Your task to perform on an android device: Go to privacy settings Image 0: 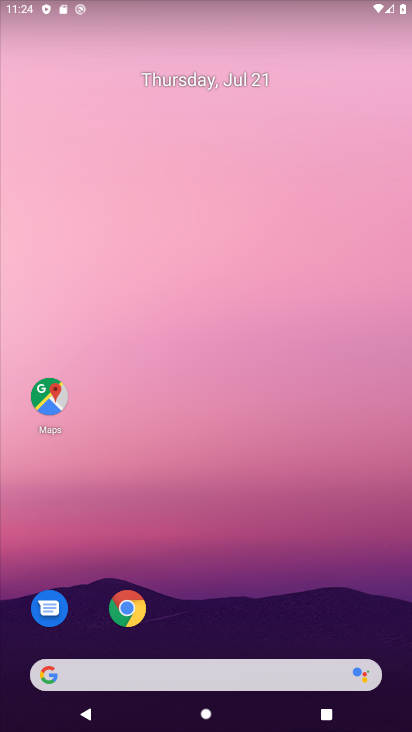
Step 0: drag from (184, 284) to (184, 248)
Your task to perform on an android device: Go to privacy settings Image 1: 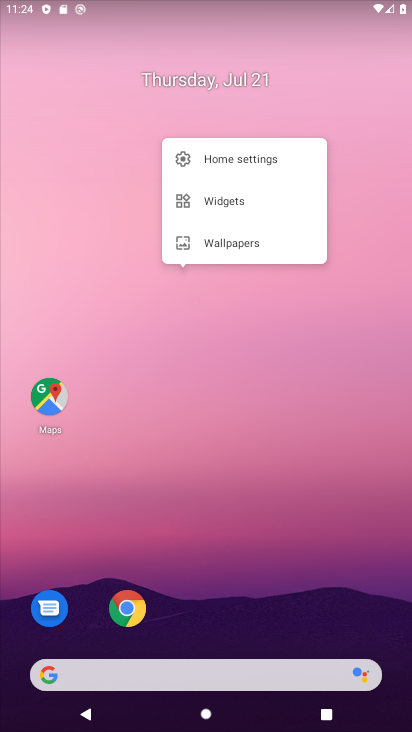
Step 1: drag from (237, 489) to (213, 343)
Your task to perform on an android device: Go to privacy settings Image 2: 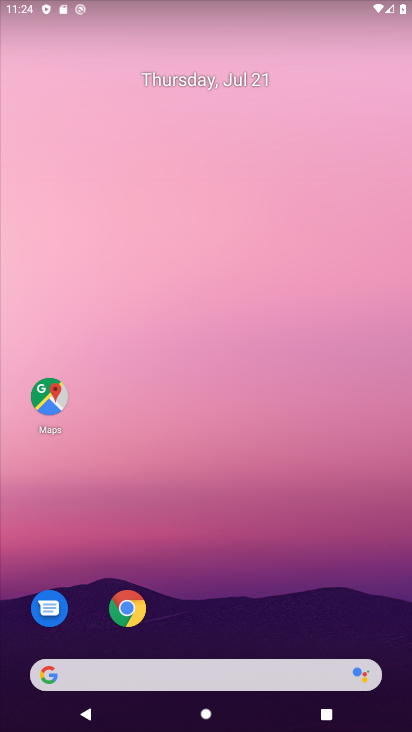
Step 2: drag from (210, 321) to (207, 280)
Your task to perform on an android device: Go to privacy settings Image 3: 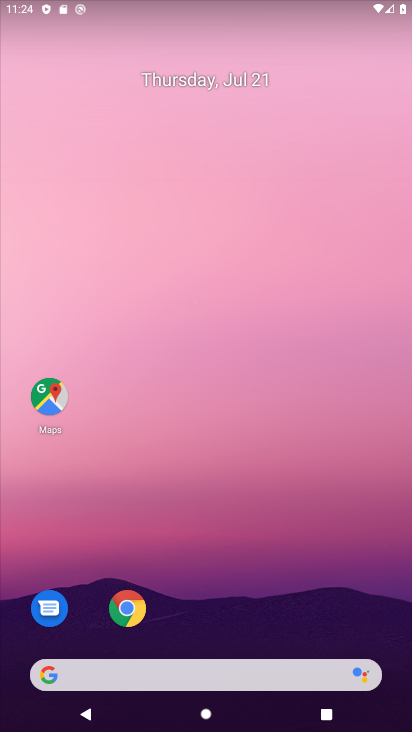
Step 3: drag from (260, 570) to (264, 338)
Your task to perform on an android device: Go to privacy settings Image 4: 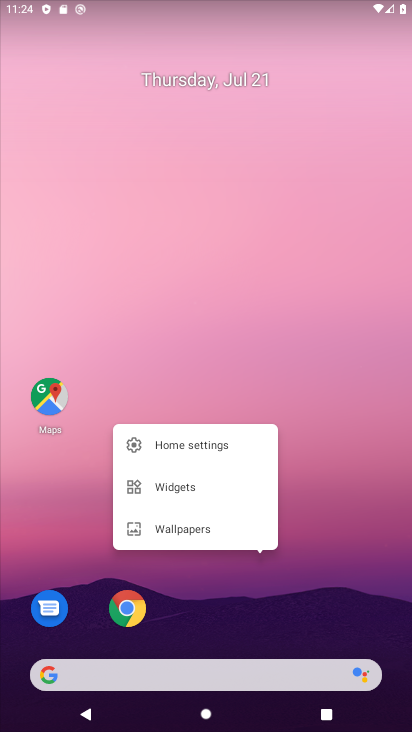
Step 4: drag from (262, 550) to (251, 209)
Your task to perform on an android device: Go to privacy settings Image 5: 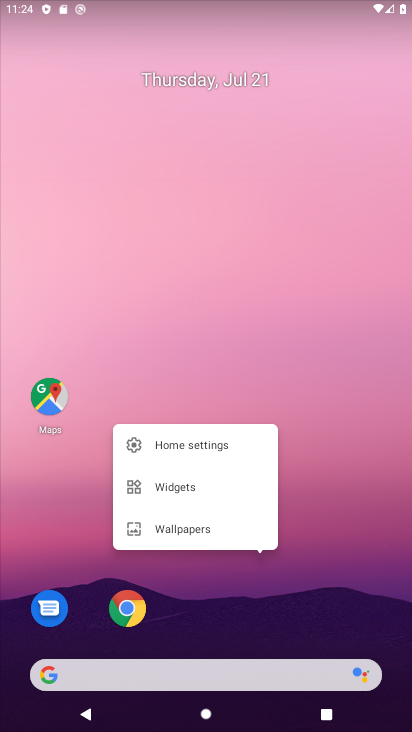
Step 5: drag from (249, 525) to (235, 197)
Your task to perform on an android device: Go to privacy settings Image 6: 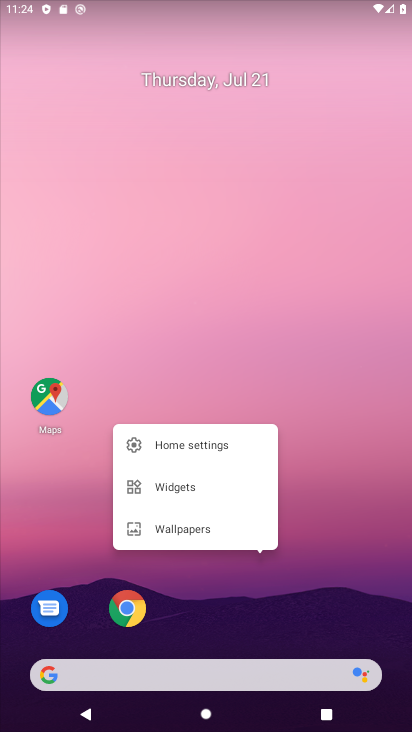
Step 6: drag from (251, 408) to (225, 101)
Your task to perform on an android device: Go to privacy settings Image 7: 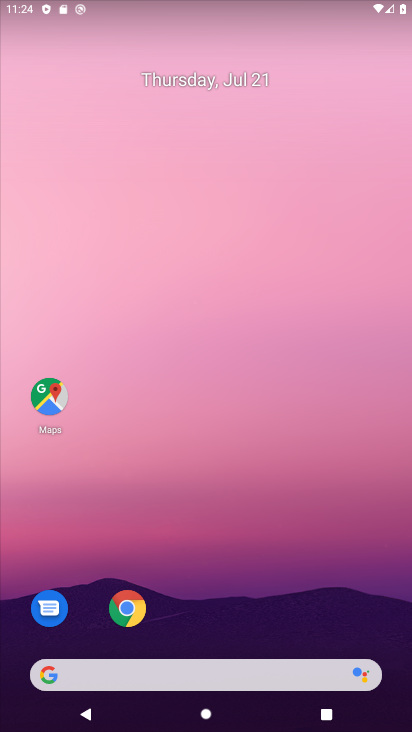
Step 7: drag from (230, 480) to (219, 206)
Your task to perform on an android device: Go to privacy settings Image 8: 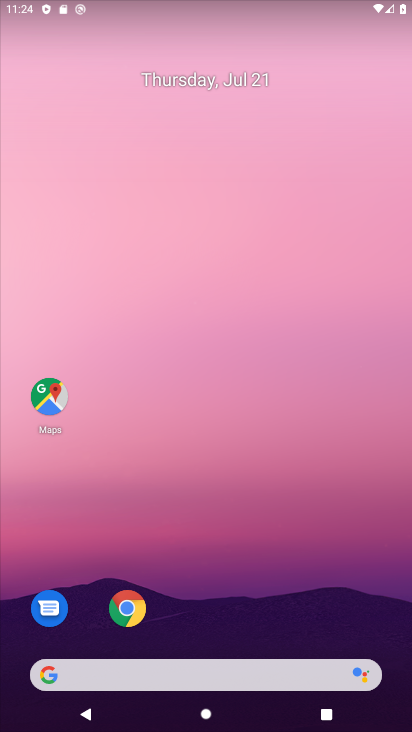
Step 8: drag from (283, 547) to (282, 34)
Your task to perform on an android device: Go to privacy settings Image 9: 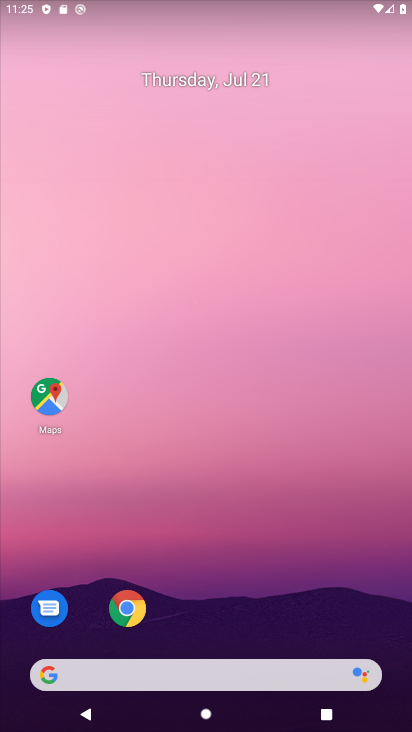
Step 9: drag from (363, 499) to (263, 101)
Your task to perform on an android device: Go to privacy settings Image 10: 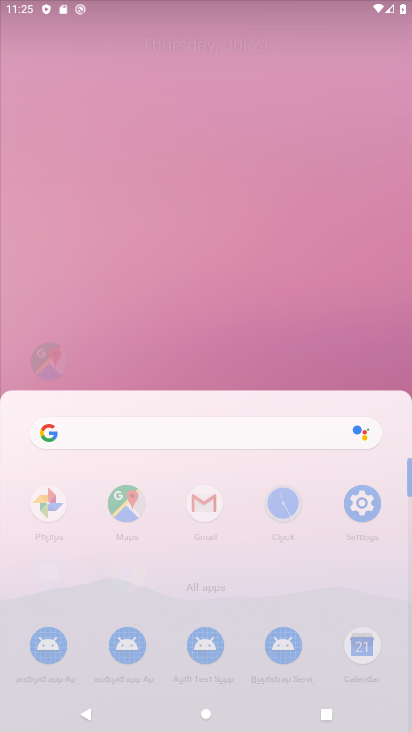
Step 10: drag from (211, 298) to (212, 263)
Your task to perform on an android device: Go to privacy settings Image 11: 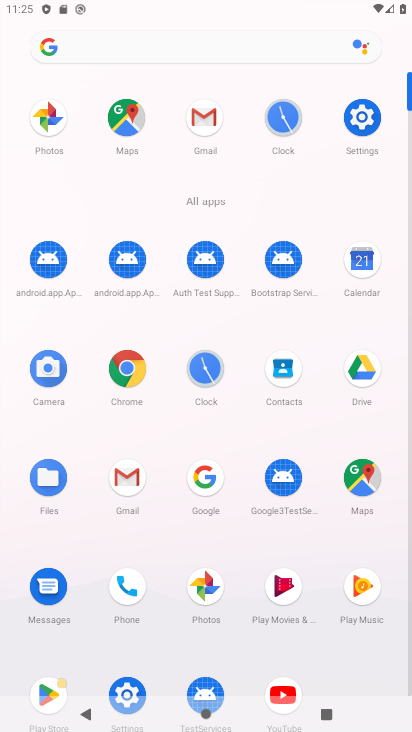
Step 11: click (124, 692)
Your task to perform on an android device: Go to privacy settings Image 12: 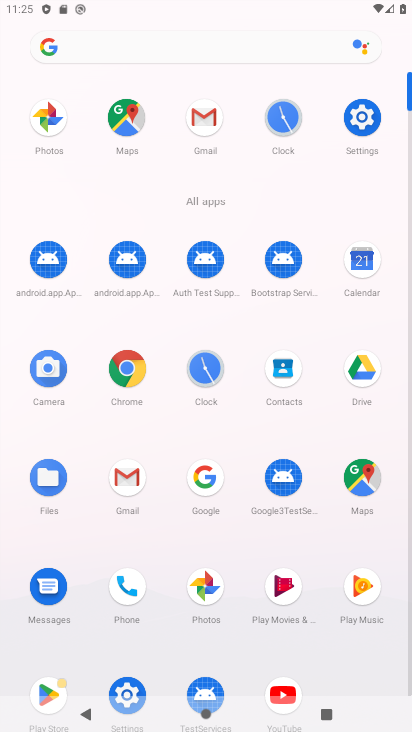
Step 12: click (124, 693)
Your task to perform on an android device: Go to privacy settings Image 13: 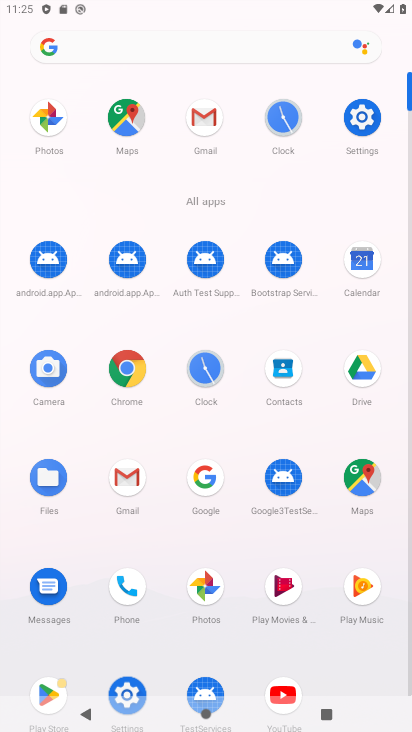
Step 13: click (120, 688)
Your task to perform on an android device: Go to privacy settings Image 14: 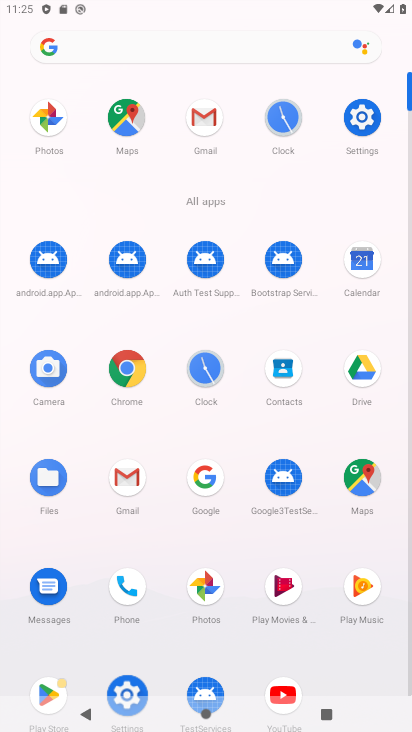
Step 14: click (126, 673)
Your task to perform on an android device: Go to privacy settings Image 15: 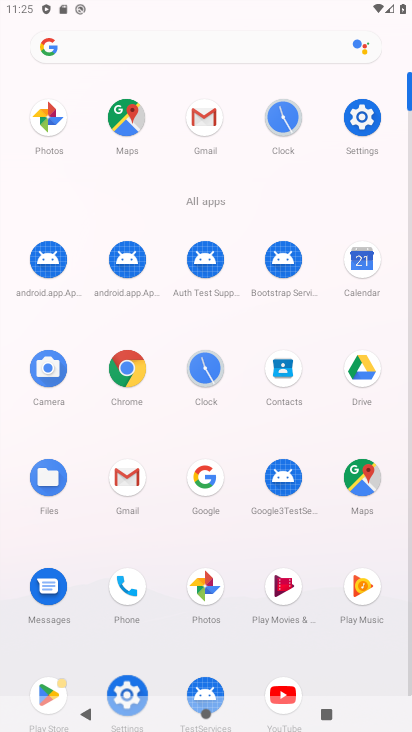
Step 15: click (135, 657)
Your task to perform on an android device: Go to privacy settings Image 16: 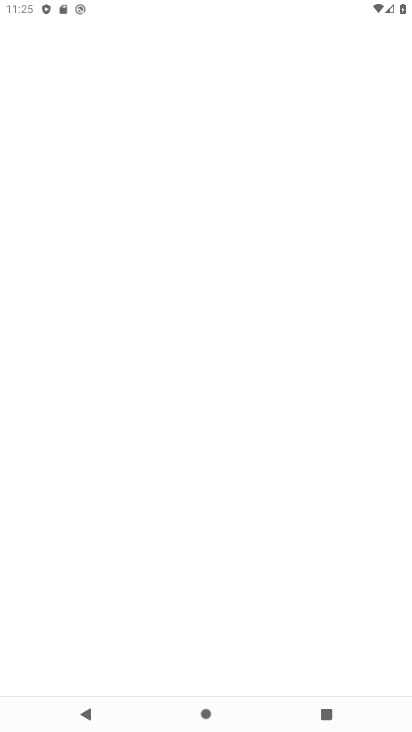
Step 16: click (142, 635)
Your task to perform on an android device: Go to privacy settings Image 17: 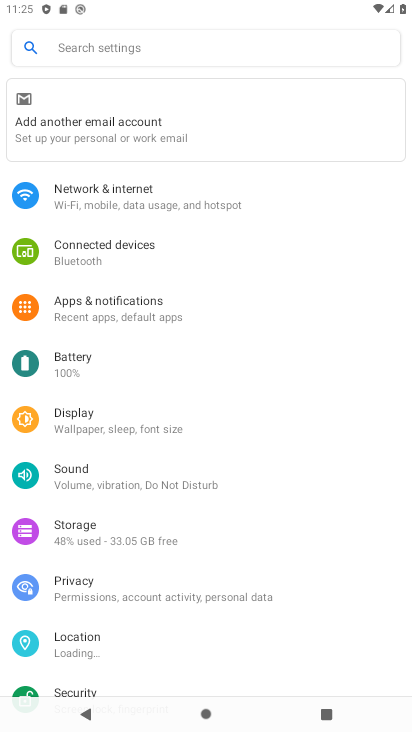
Step 17: click (73, 574)
Your task to perform on an android device: Go to privacy settings Image 18: 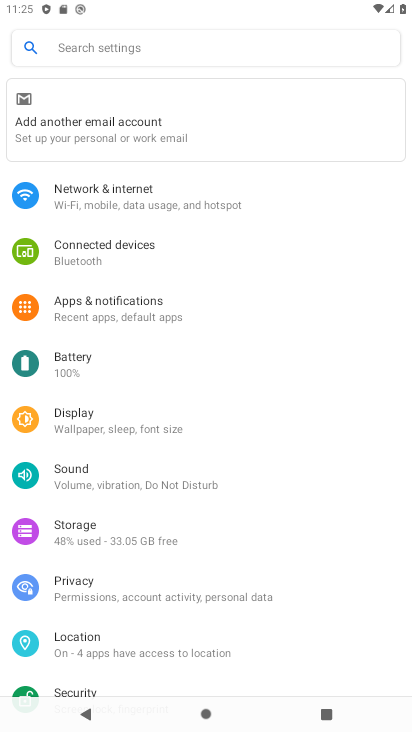
Step 18: click (76, 573)
Your task to perform on an android device: Go to privacy settings Image 19: 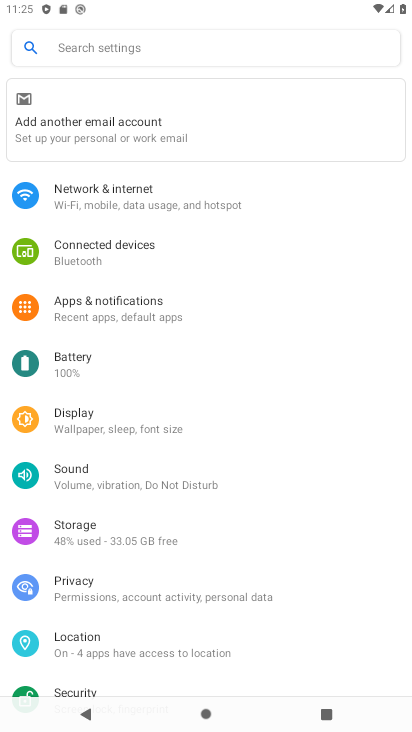
Step 19: click (79, 570)
Your task to perform on an android device: Go to privacy settings Image 20: 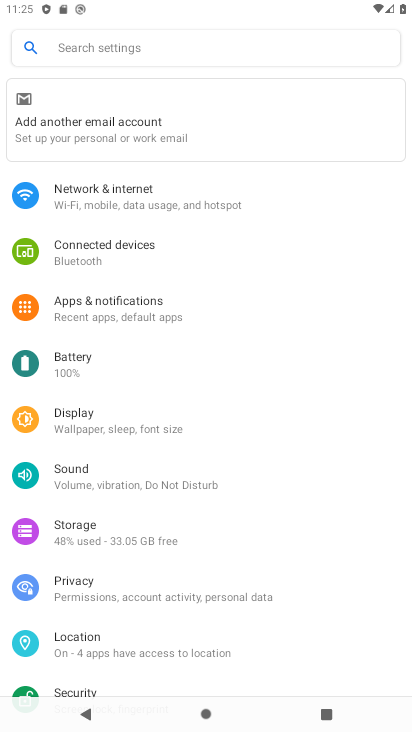
Step 20: click (82, 567)
Your task to perform on an android device: Go to privacy settings Image 21: 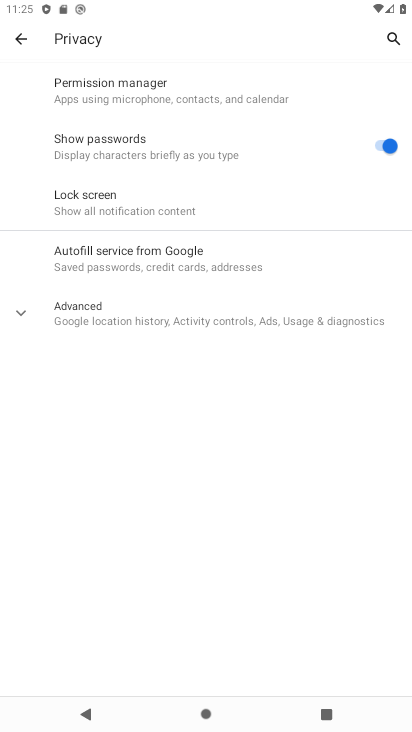
Step 21: click (85, 610)
Your task to perform on an android device: Go to privacy settings Image 22: 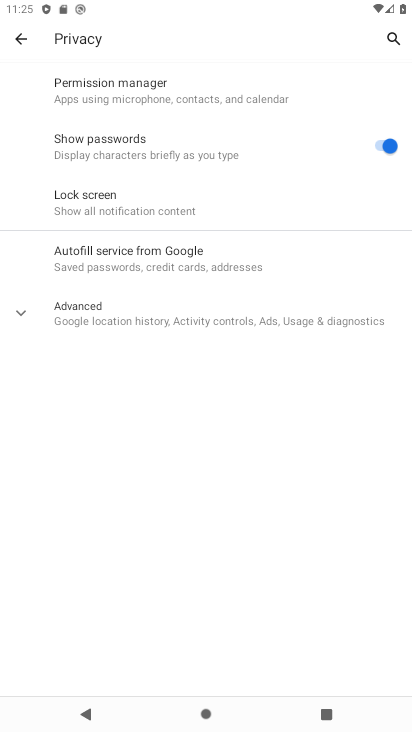
Step 22: task complete